Your task to perform on an android device: Search for the best rated 4k tvs on Walmart. Image 0: 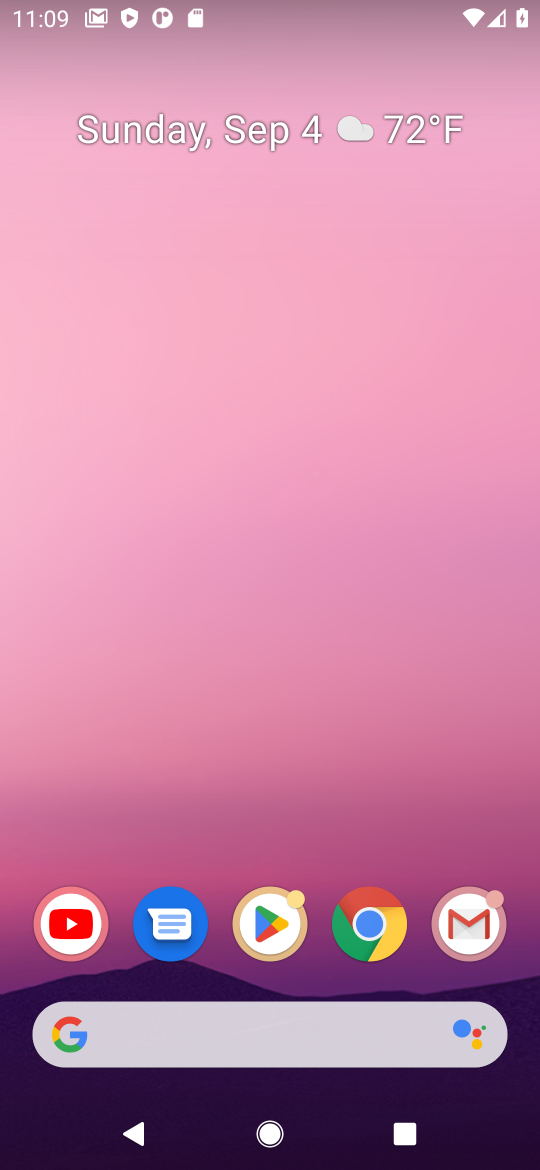
Step 0: press home button
Your task to perform on an android device: Search for the best rated 4k tvs on Walmart. Image 1: 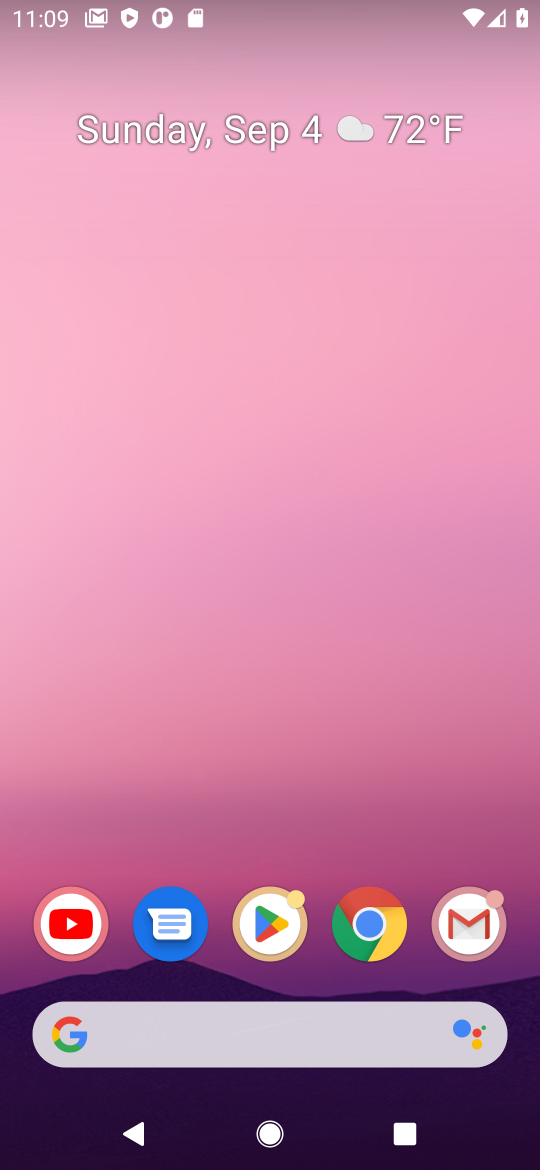
Step 1: drag from (321, 718) to (407, 1)
Your task to perform on an android device: Search for the best rated 4k tvs on Walmart. Image 2: 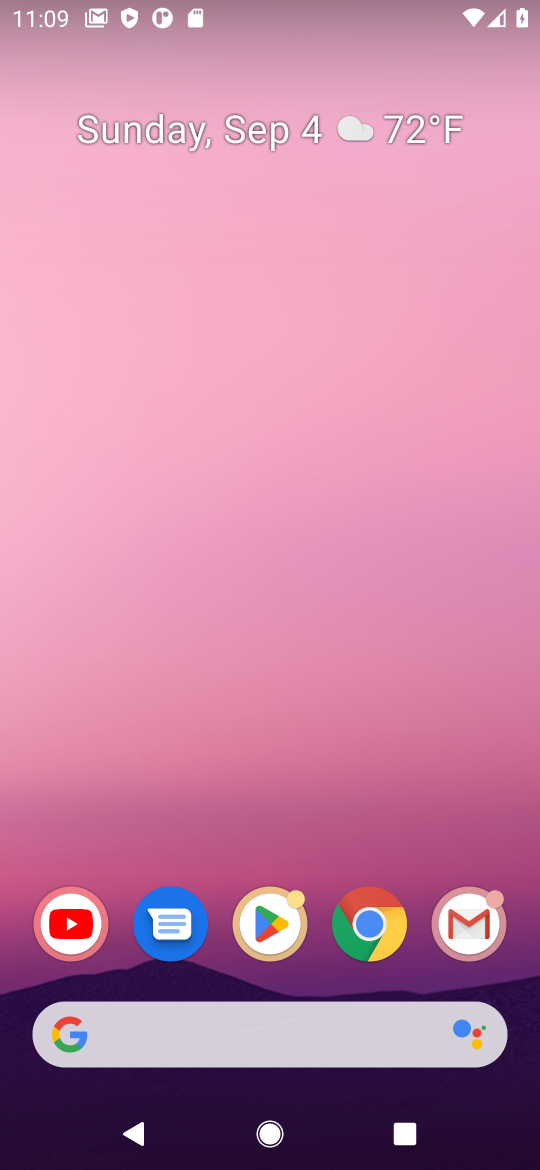
Step 2: click (293, 73)
Your task to perform on an android device: Search for the best rated 4k tvs on Walmart. Image 3: 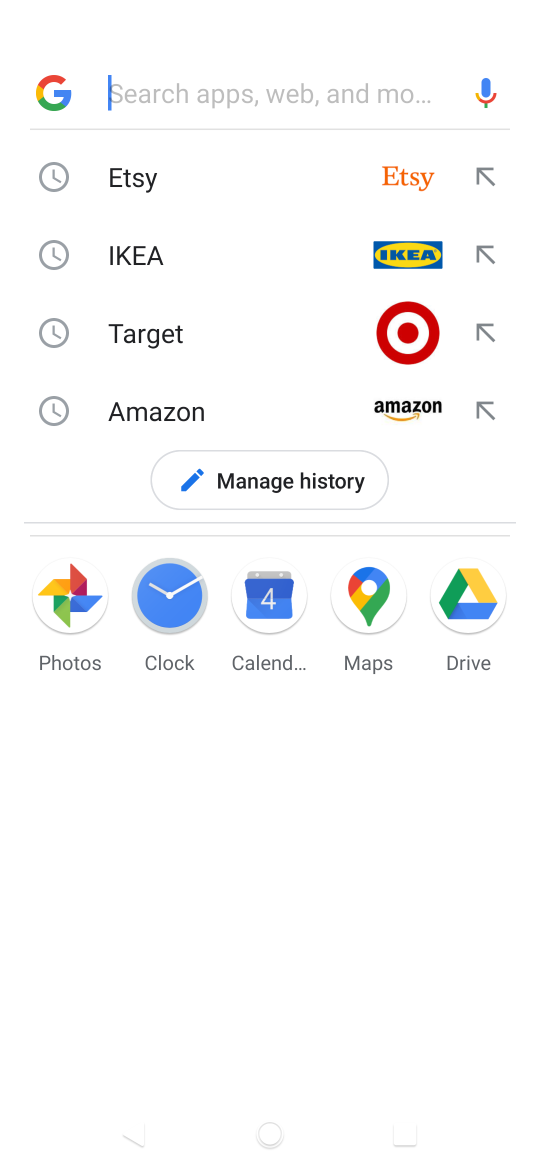
Step 3: type "best rated 4k tvs on Walmart"
Your task to perform on an android device: Search for the best rated 4k tvs on Walmart. Image 4: 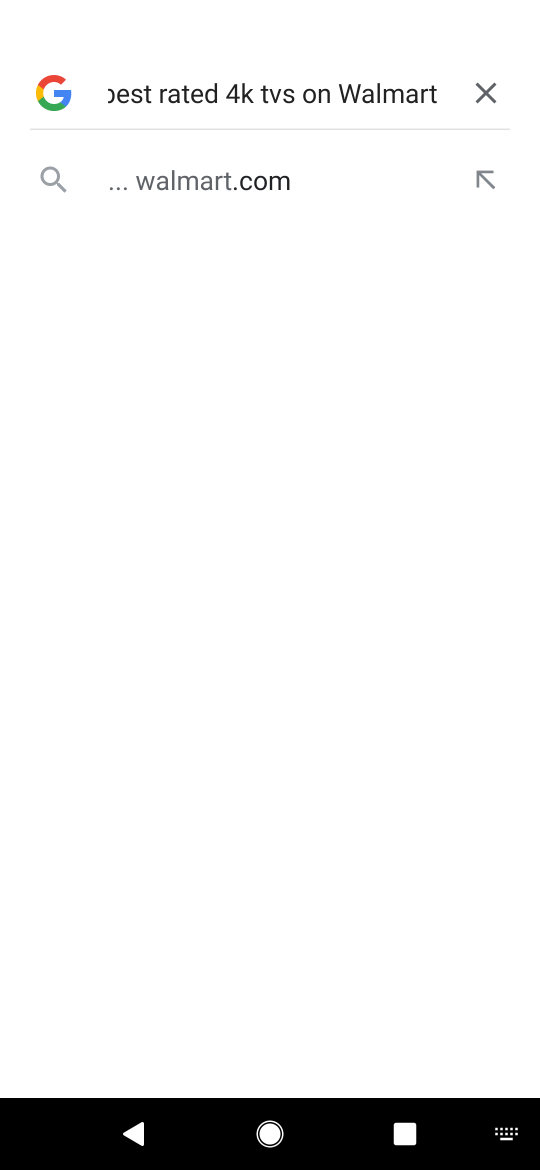
Step 4: click (255, 173)
Your task to perform on an android device: Search for the best rated 4k tvs on Walmart. Image 5: 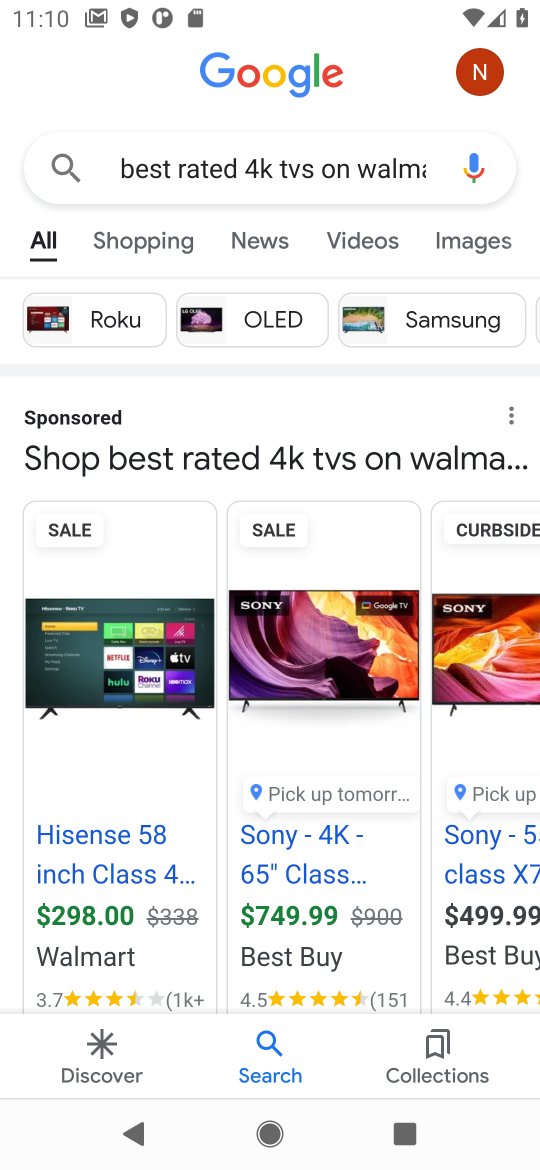
Step 5: drag from (213, 930) to (246, 151)
Your task to perform on an android device: Search for the best rated 4k tvs on Walmart. Image 6: 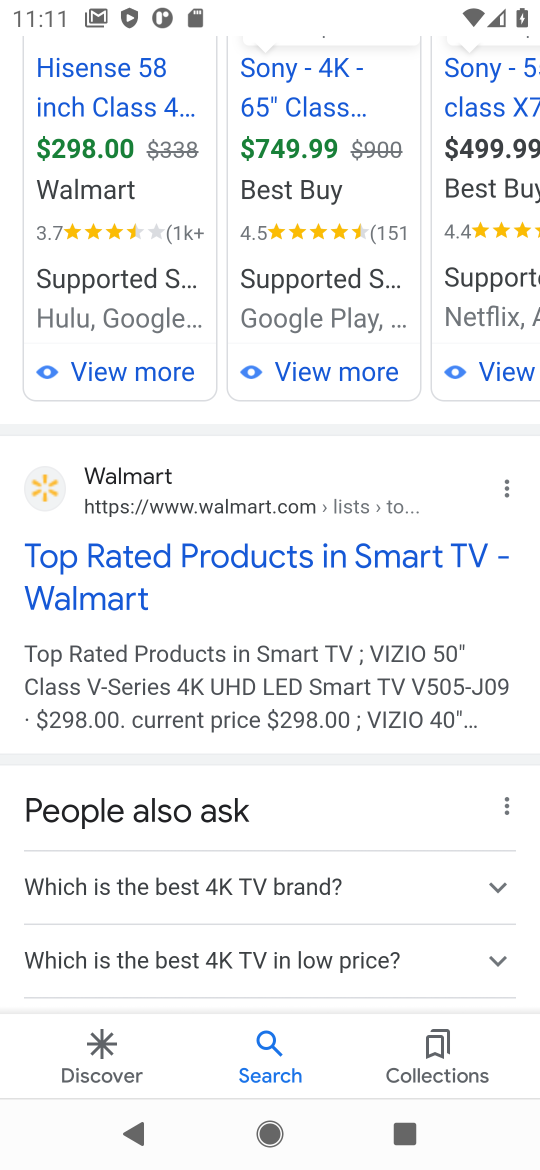
Step 6: drag from (262, 388) to (298, 146)
Your task to perform on an android device: Search for the best rated 4k tvs on Walmart. Image 7: 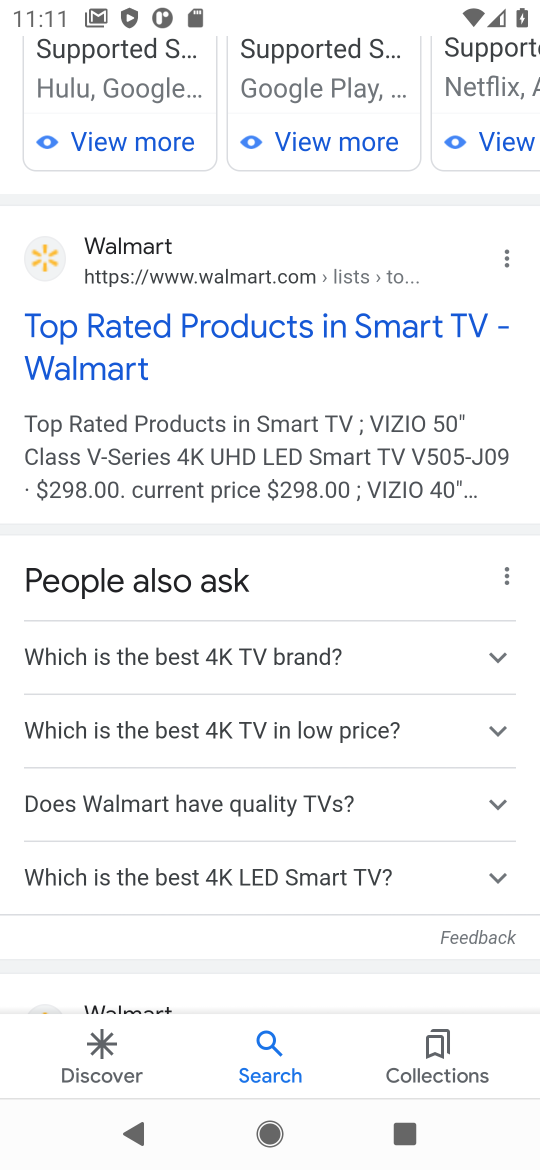
Step 7: drag from (256, 954) to (235, 506)
Your task to perform on an android device: Search for the best rated 4k tvs on Walmart. Image 8: 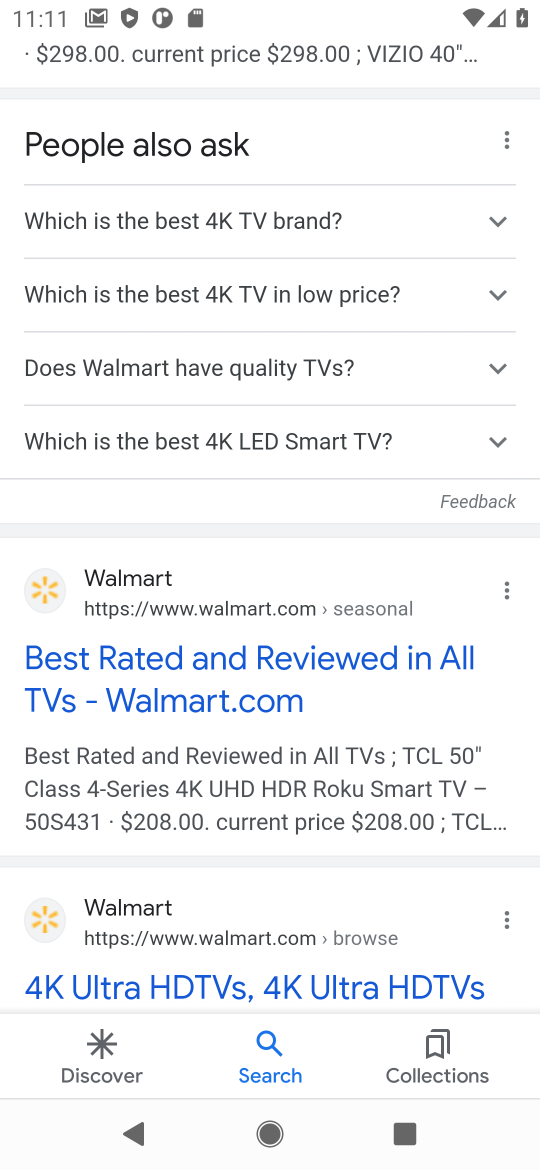
Step 8: click (271, 659)
Your task to perform on an android device: Search for the best rated 4k tvs on Walmart. Image 9: 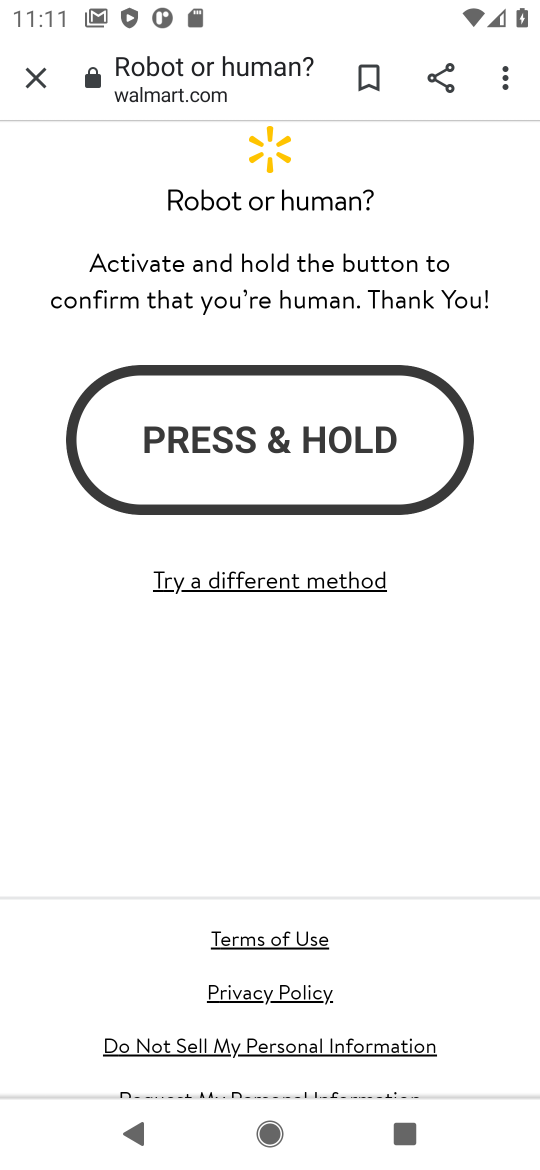
Step 9: drag from (248, 674) to (263, 476)
Your task to perform on an android device: Search for the best rated 4k tvs on Walmart. Image 10: 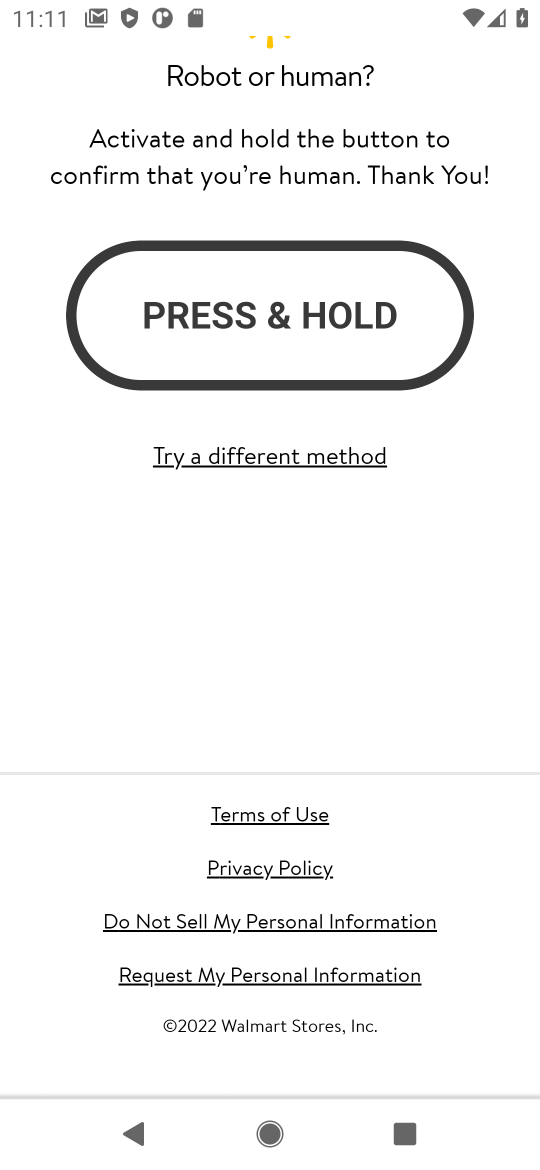
Step 10: drag from (75, 100) to (135, 742)
Your task to perform on an android device: Search for the best rated 4k tvs on Walmart. Image 11: 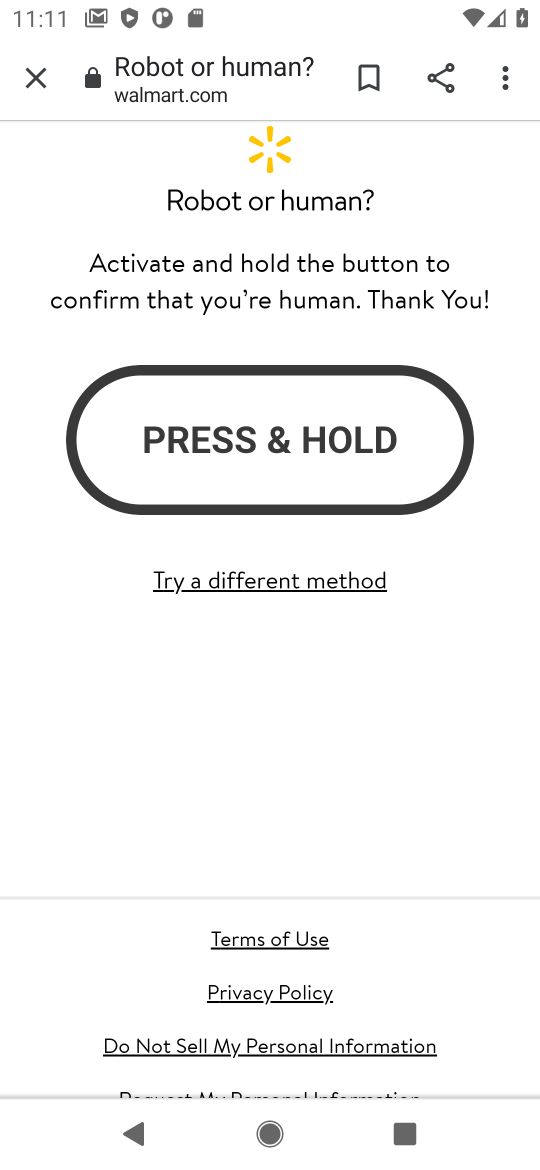
Step 11: click (27, 71)
Your task to perform on an android device: Search for the best rated 4k tvs on Walmart. Image 12: 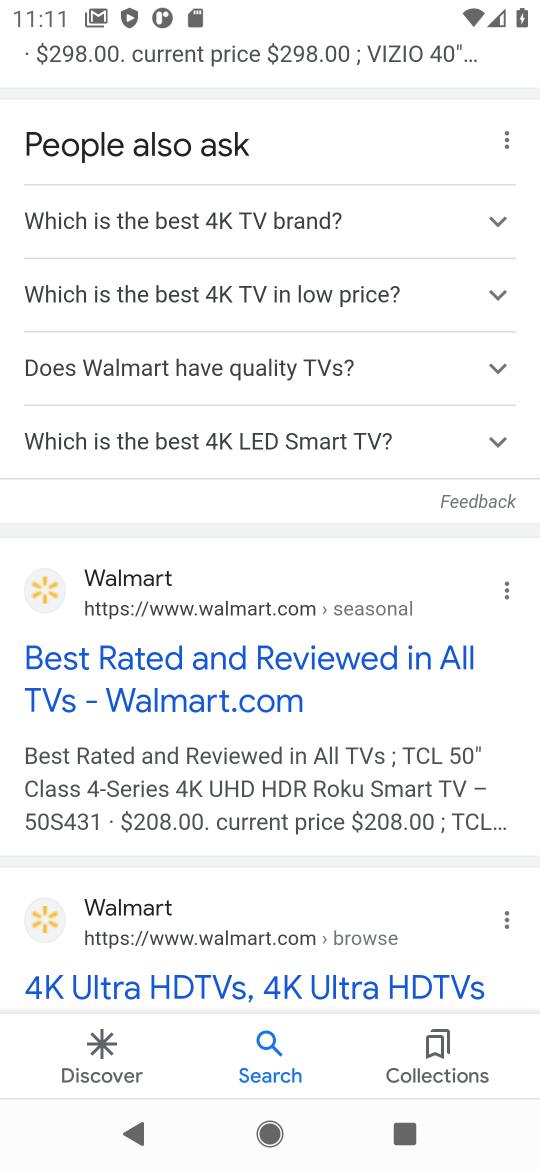
Step 12: click (213, 988)
Your task to perform on an android device: Search for the best rated 4k tvs on Walmart. Image 13: 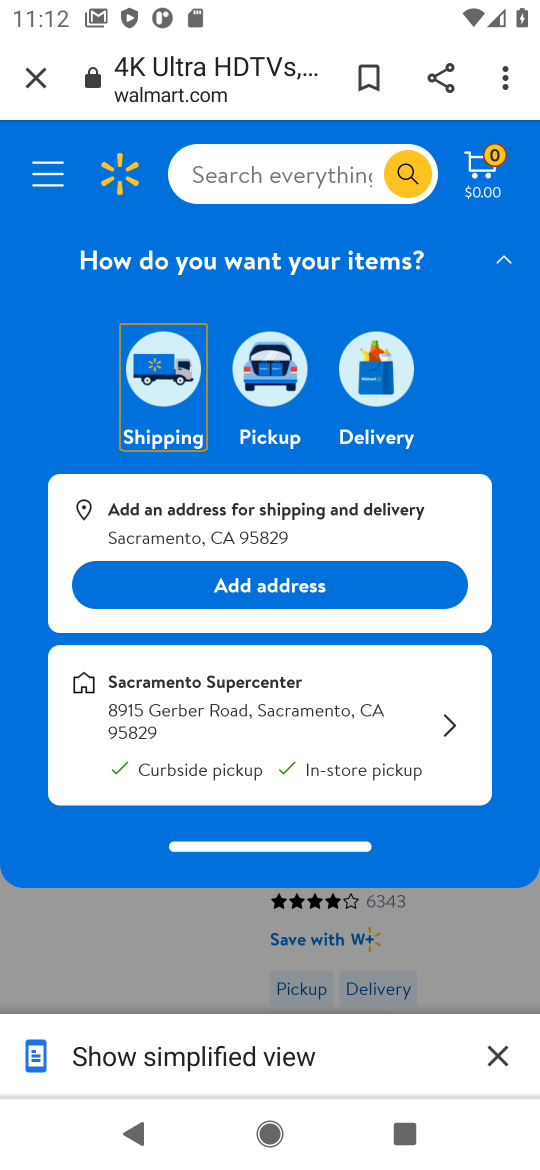
Step 13: click (281, 975)
Your task to perform on an android device: Search for the best rated 4k tvs on Walmart. Image 14: 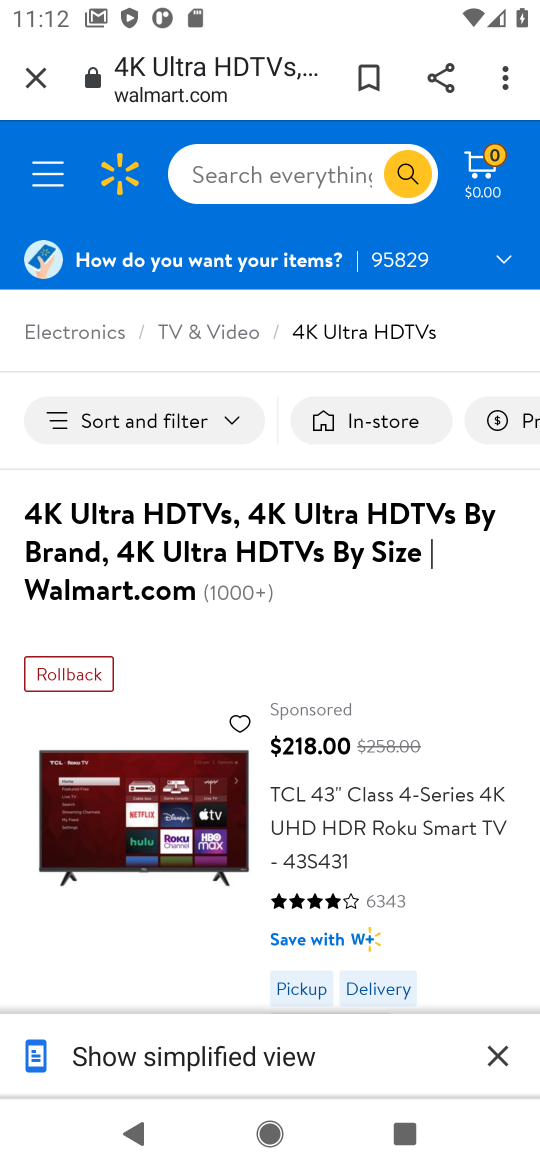
Step 14: drag from (243, 236) to (243, 162)
Your task to perform on an android device: Search for the best rated 4k tvs on Walmart. Image 15: 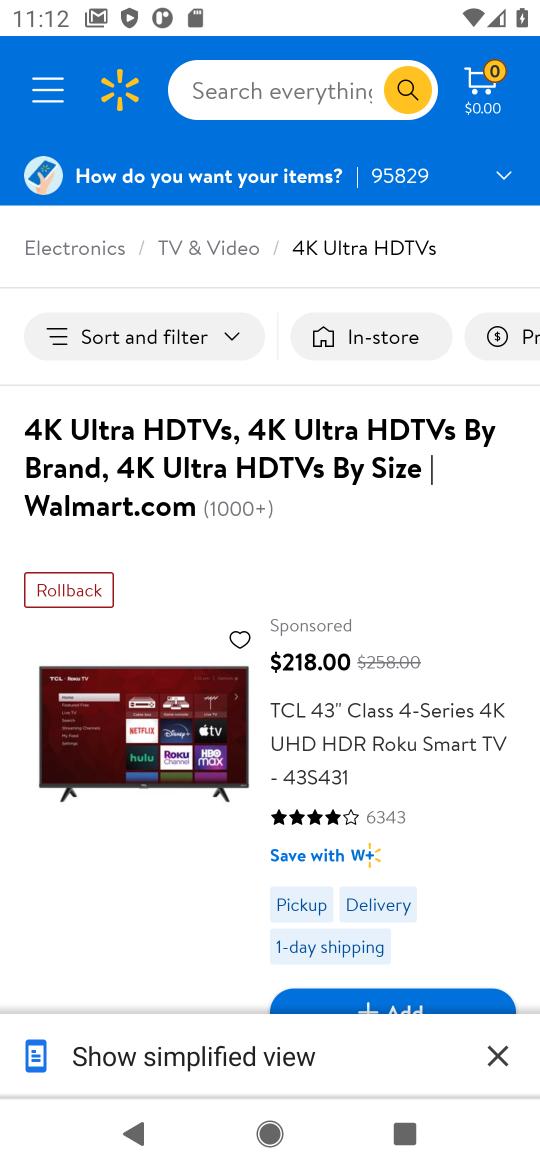
Step 15: click (240, 368)
Your task to perform on an android device: Search for the best rated 4k tvs on Walmart. Image 16: 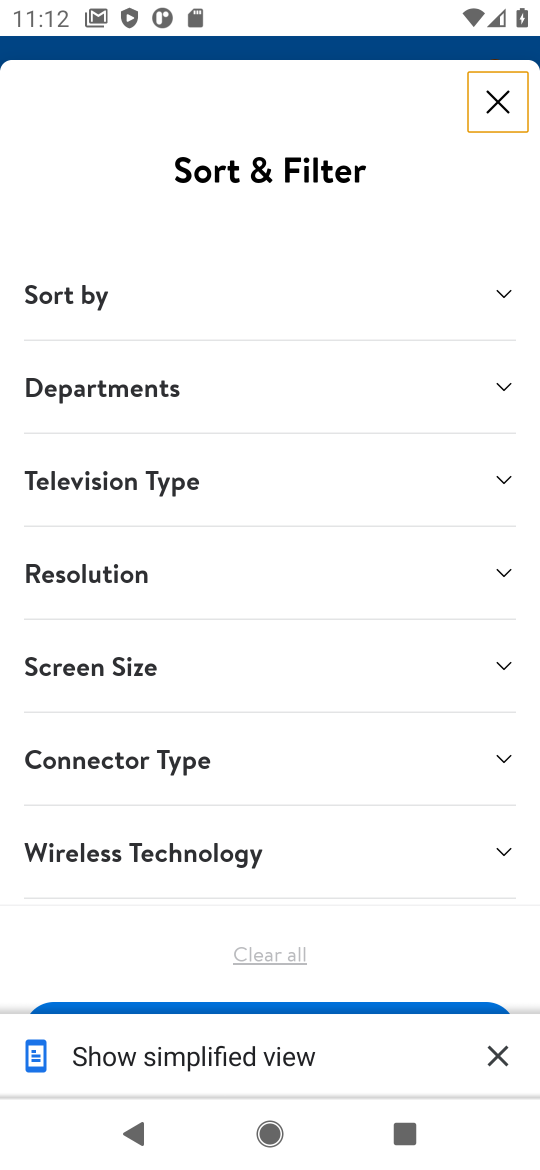
Step 16: click (489, 91)
Your task to perform on an android device: Search for the best rated 4k tvs on Walmart. Image 17: 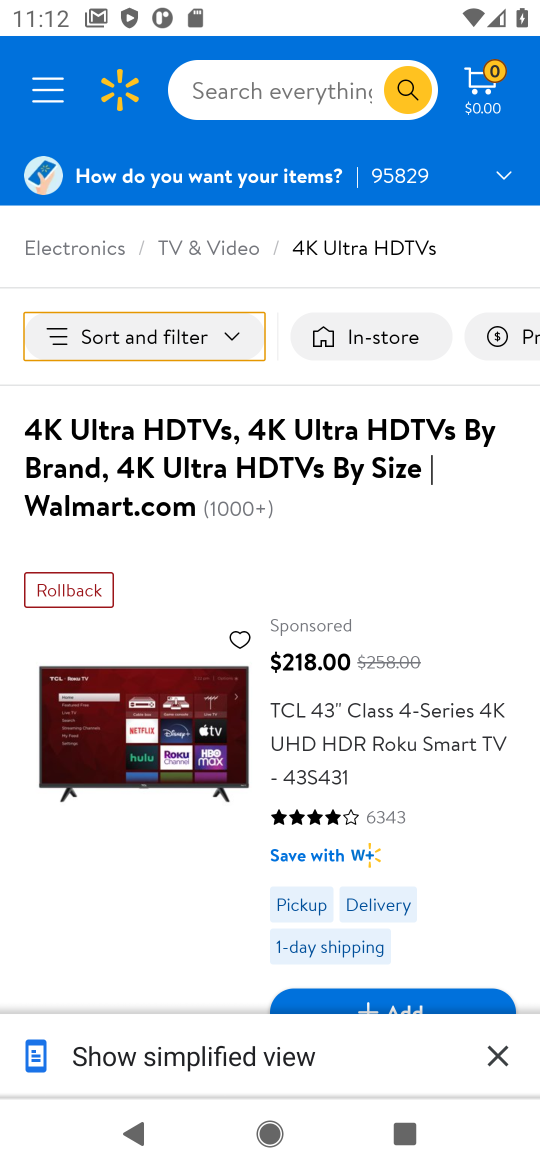
Step 17: task complete